Your task to perform on an android device: Open Reddit.com Image 0: 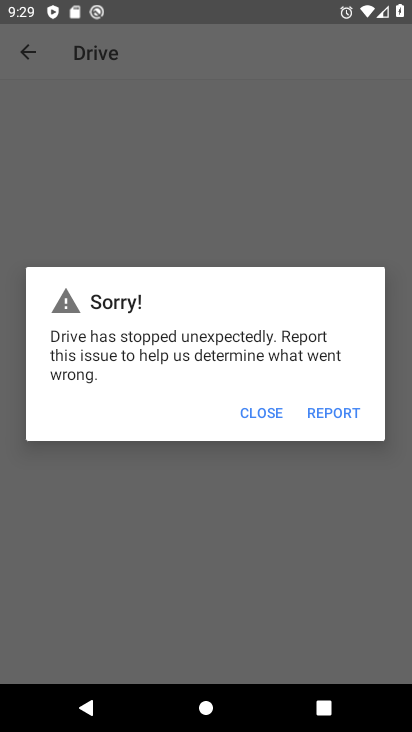
Step 0: press home button
Your task to perform on an android device: Open Reddit.com Image 1: 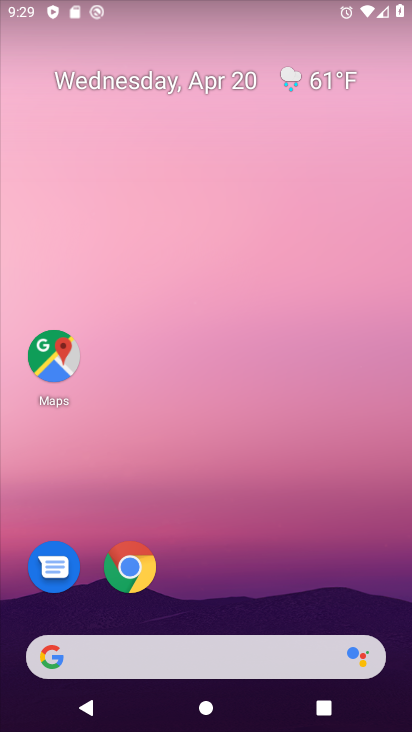
Step 1: click (197, 648)
Your task to perform on an android device: Open Reddit.com Image 2: 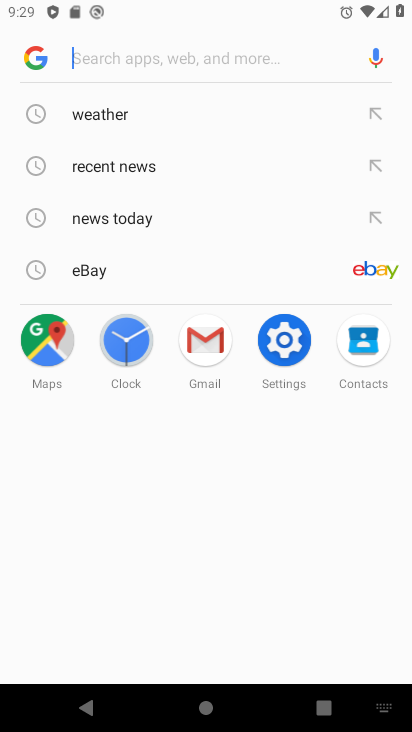
Step 2: type "Reddit.com"
Your task to perform on an android device: Open Reddit.com Image 3: 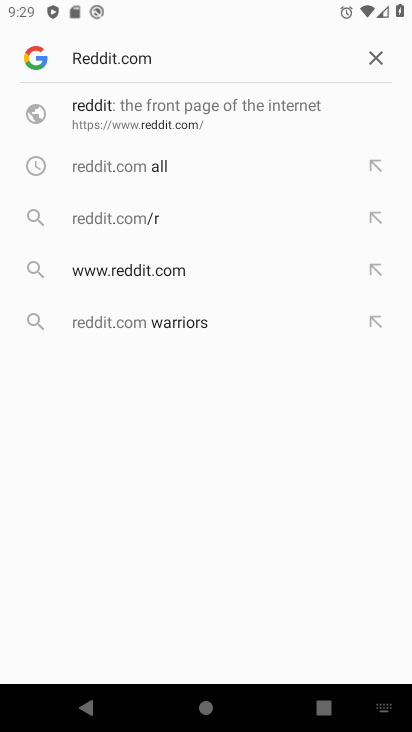
Step 3: click (178, 121)
Your task to perform on an android device: Open Reddit.com Image 4: 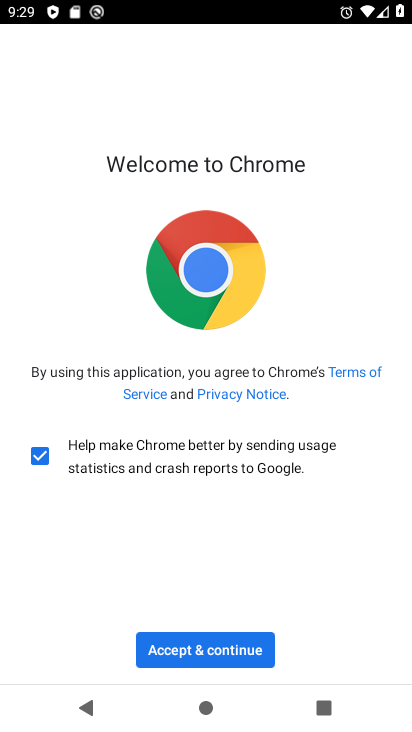
Step 4: click (243, 656)
Your task to perform on an android device: Open Reddit.com Image 5: 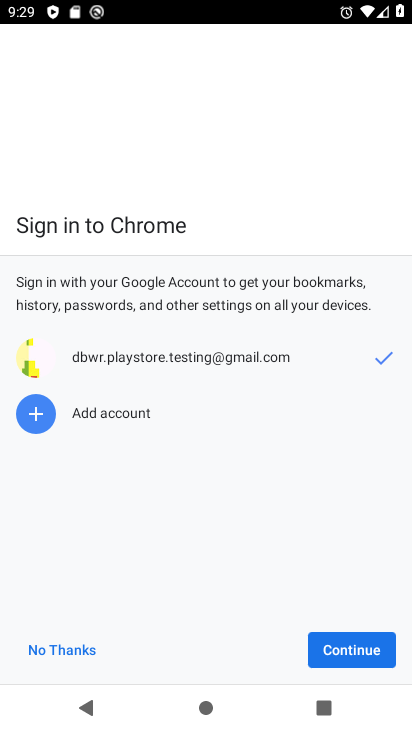
Step 5: click (320, 639)
Your task to perform on an android device: Open Reddit.com Image 6: 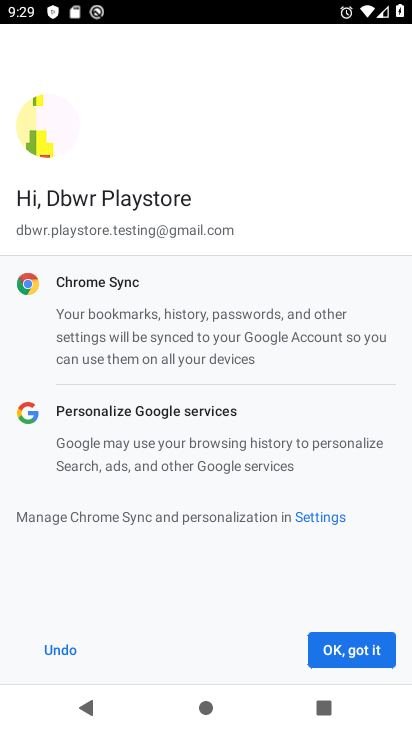
Step 6: click (320, 639)
Your task to perform on an android device: Open Reddit.com Image 7: 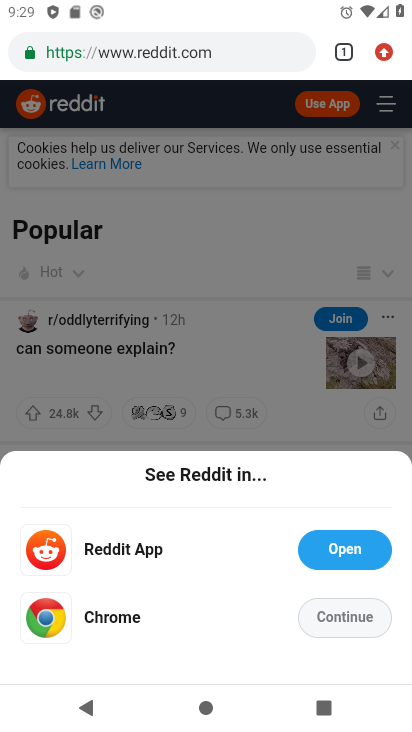
Step 7: click (341, 620)
Your task to perform on an android device: Open Reddit.com Image 8: 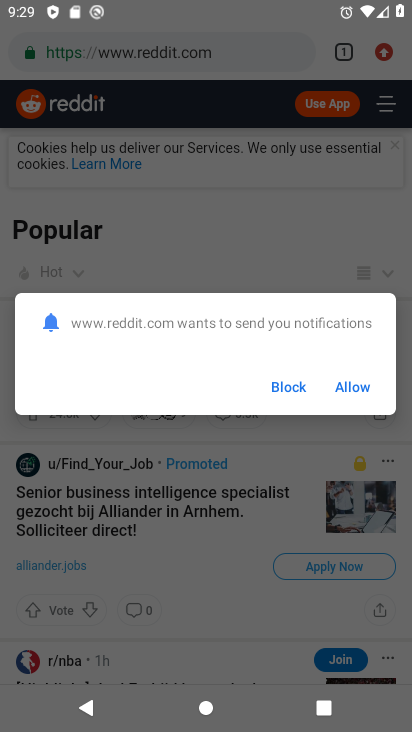
Step 8: task complete